Your task to perform on an android device: Show me productivity apps on the Play Store Image 0: 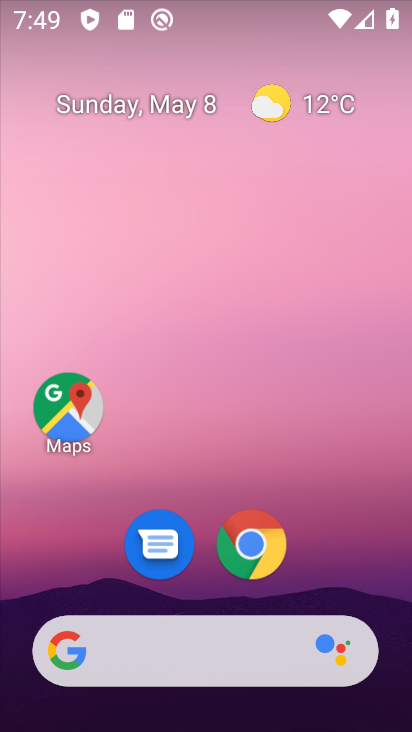
Step 0: drag from (335, 528) to (261, 100)
Your task to perform on an android device: Show me productivity apps on the Play Store Image 1: 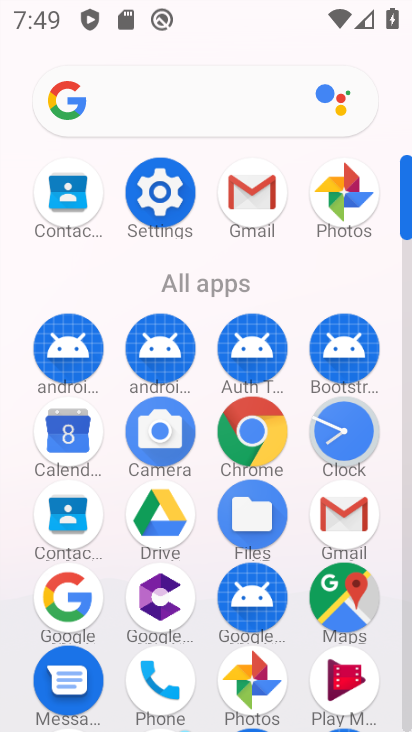
Step 1: click (407, 539)
Your task to perform on an android device: Show me productivity apps on the Play Store Image 2: 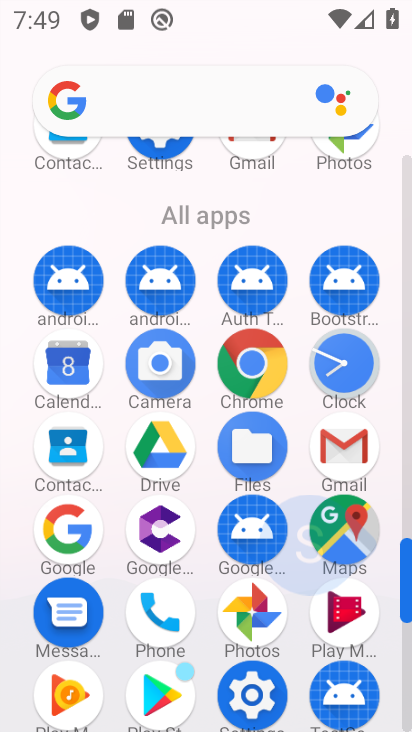
Step 2: click (407, 539)
Your task to perform on an android device: Show me productivity apps on the Play Store Image 3: 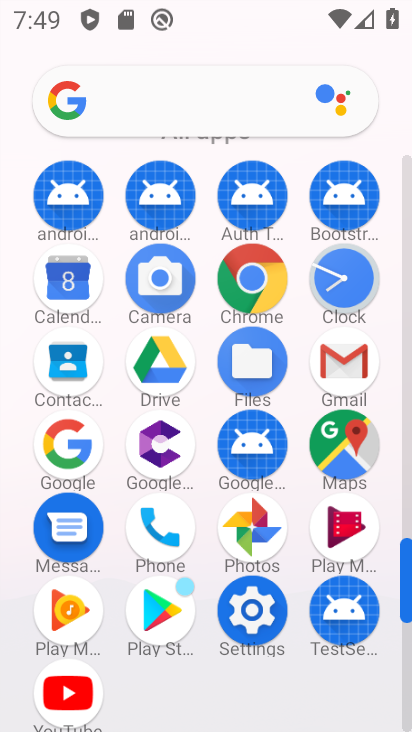
Step 3: click (160, 620)
Your task to perform on an android device: Show me productivity apps on the Play Store Image 4: 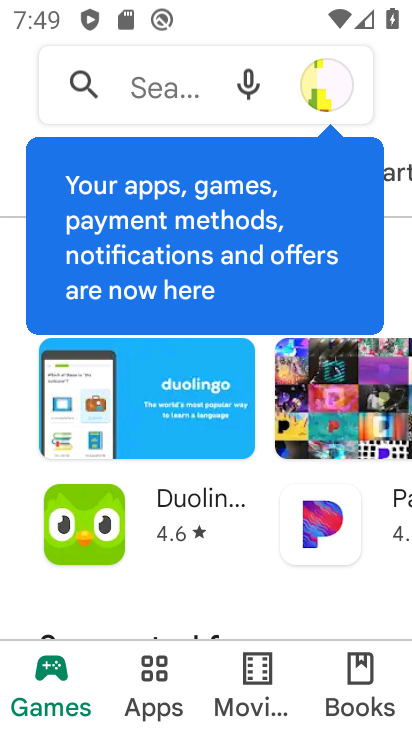
Step 4: click (156, 673)
Your task to perform on an android device: Show me productivity apps on the Play Store Image 5: 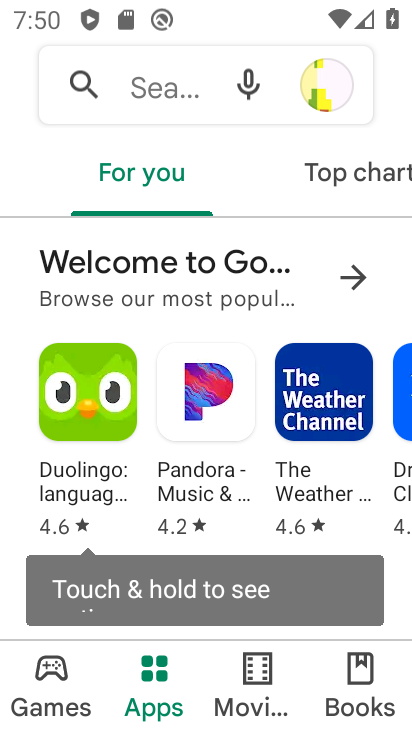
Step 5: task complete